Your task to perform on an android device: Go to Wikipedia Image 0: 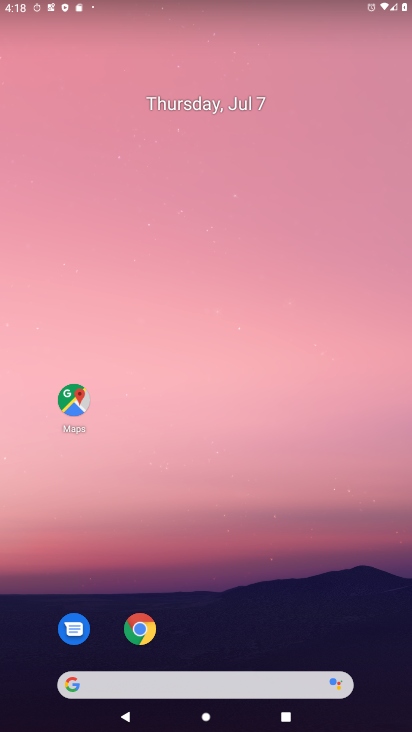
Step 0: drag from (191, 646) to (192, 63)
Your task to perform on an android device: Go to Wikipedia Image 1: 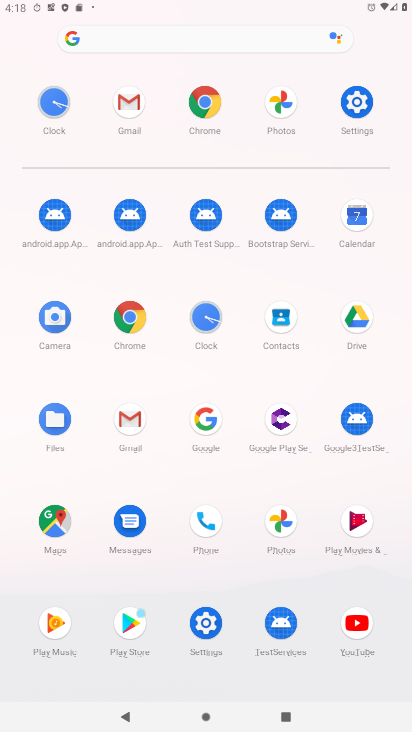
Step 1: click (355, 109)
Your task to perform on an android device: Go to Wikipedia Image 2: 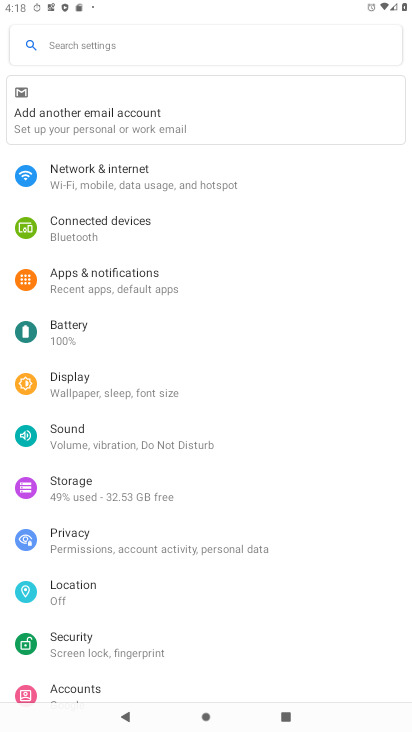
Step 2: press home button
Your task to perform on an android device: Go to Wikipedia Image 3: 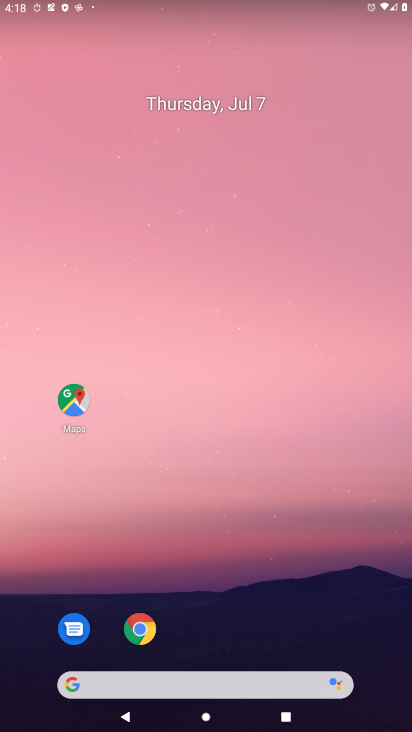
Step 3: drag from (199, 462) to (202, 119)
Your task to perform on an android device: Go to Wikipedia Image 4: 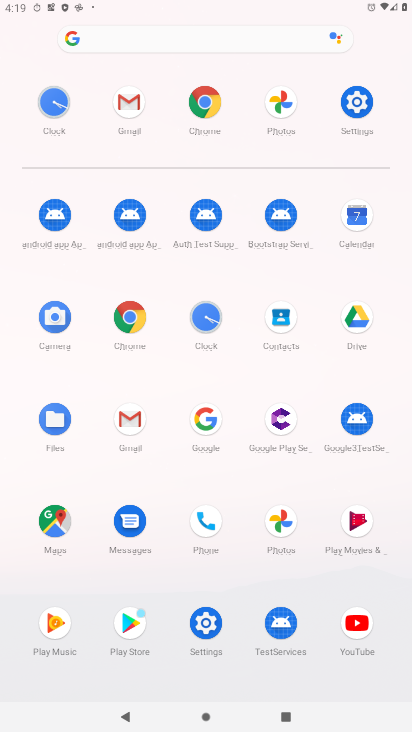
Step 4: click (212, 125)
Your task to perform on an android device: Go to Wikipedia Image 5: 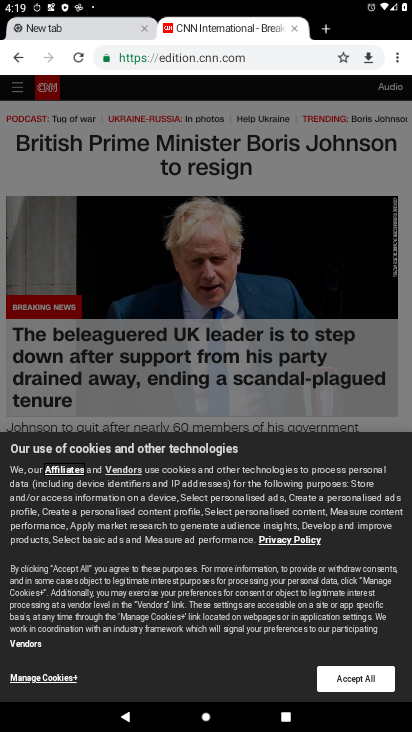
Step 5: click (291, 29)
Your task to perform on an android device: Go to Wikipedia Image 6: 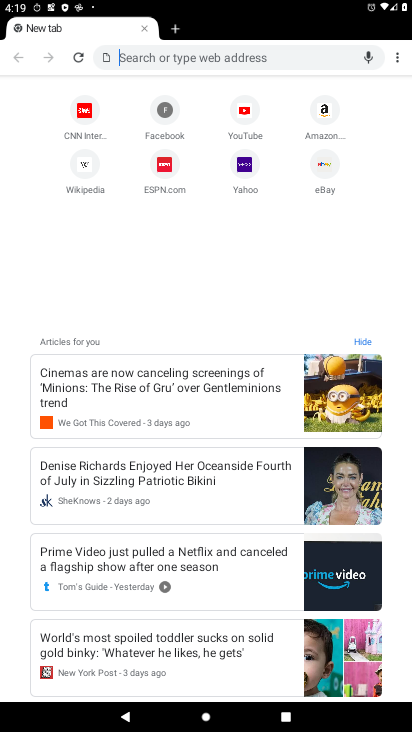
Step 6: click (71, 186)
Your task to perform on an android device: Go to Wikipedia Image 7: 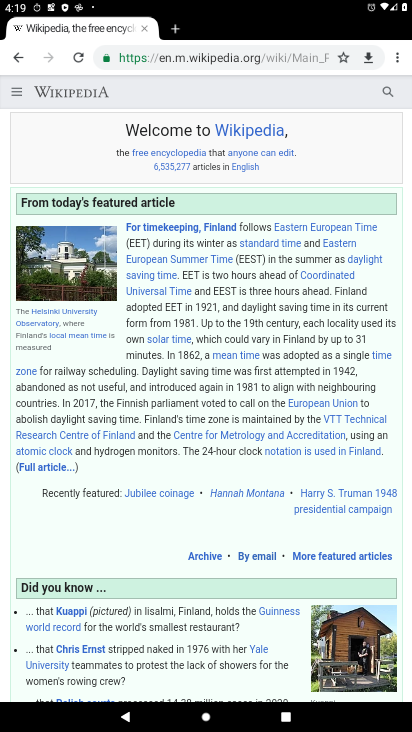
Step 7: task complete